Your task to perform on an android device: Check the weather Image 0: 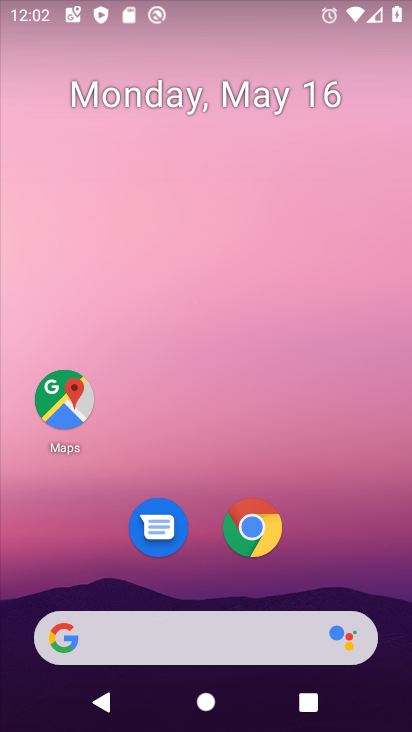
Step 0: click (177, 648)
Your task to perform on an android device: Check the weather Image 1: 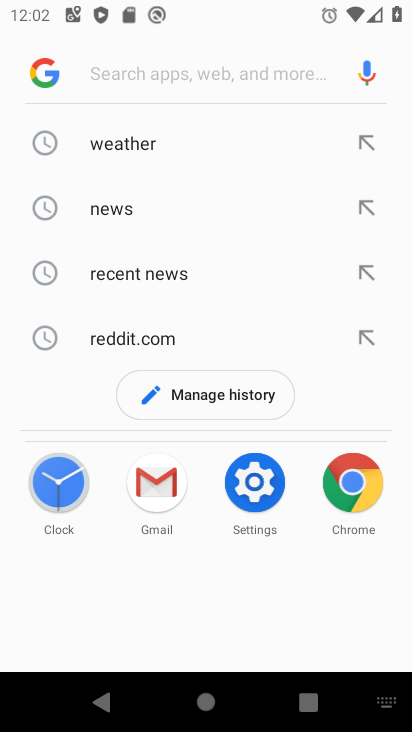
Step 1: click (209, 144)
Your task to perform on an android device: Check the weather Image 2: 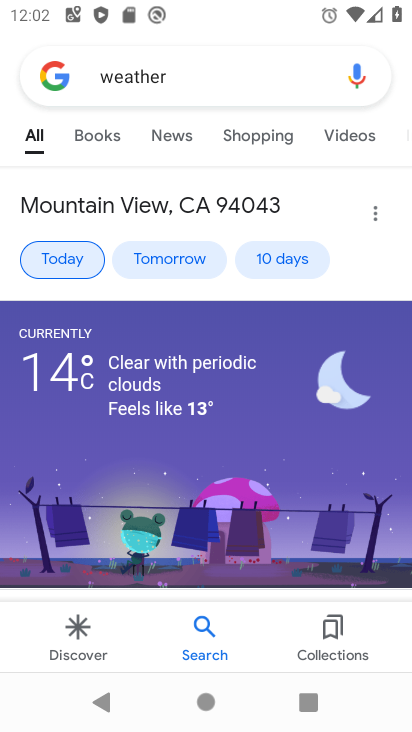
Step 2: task complete